Your task to perform on an android device: turn vacation reply on in the gmail app Image 0: 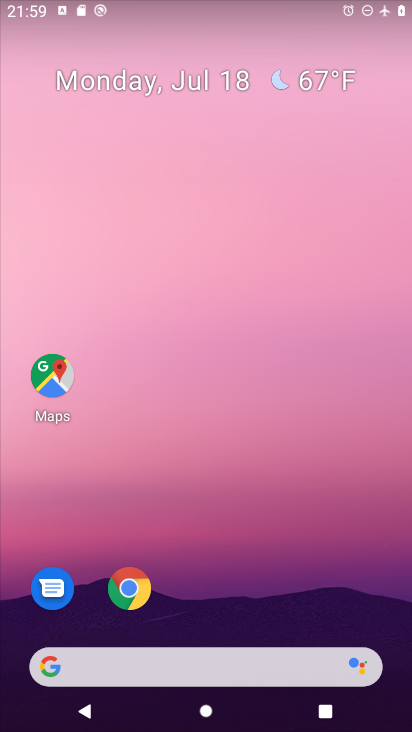
Step 0: drag from (364, 593) to (363, 192)
Your task to perform on an android device: turn vacation reply on in the gmail app Image 1: 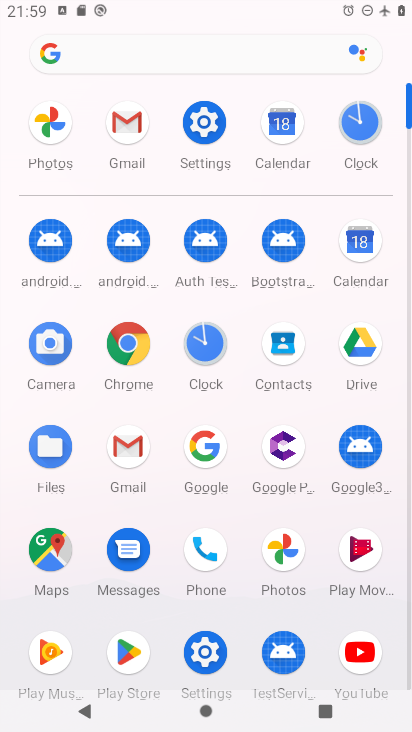
Step 1: click (124, 447)
Your task to perform on an android device: turn vacation reply on in the gmail app Image 2: 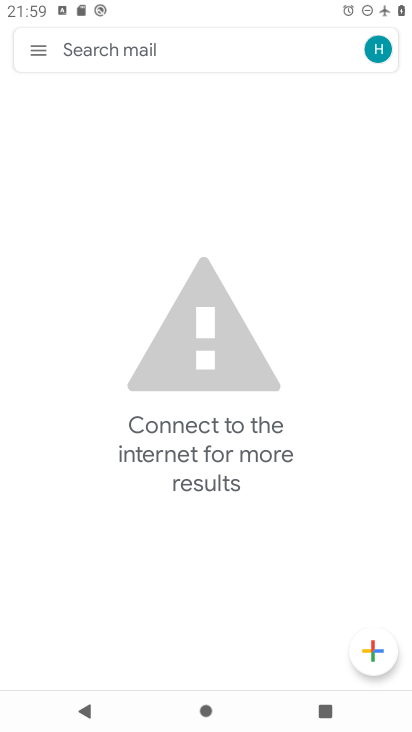
Step 2: click (37, 48)
Your task to perform on an android device: turn vacation reply on in the gmail app Image 3: 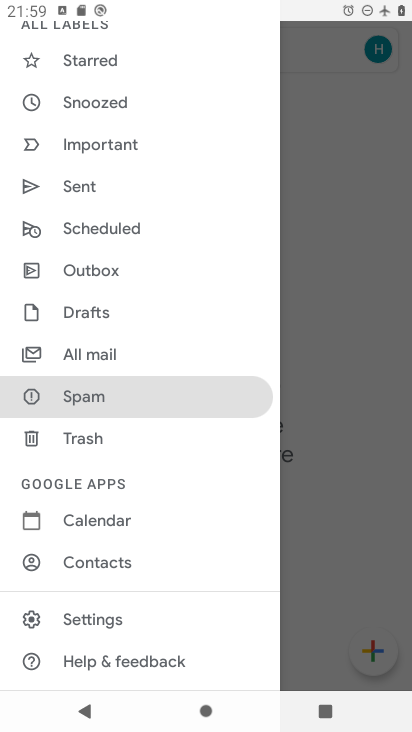
Step 3: click (90, 616)
Your task to perform on an android device: turn vacation reply on in the gmail app Image 4: 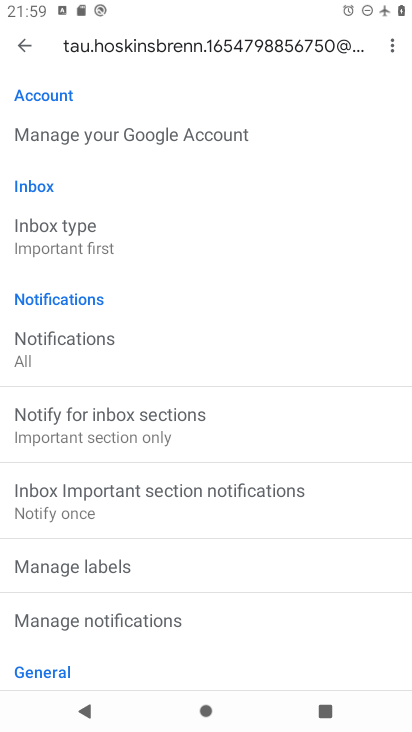
Step 4: drag from (211, 643) to (204, 284)
Your task to perform on an android device: turn vacation reply on in the gmail app Image 5: 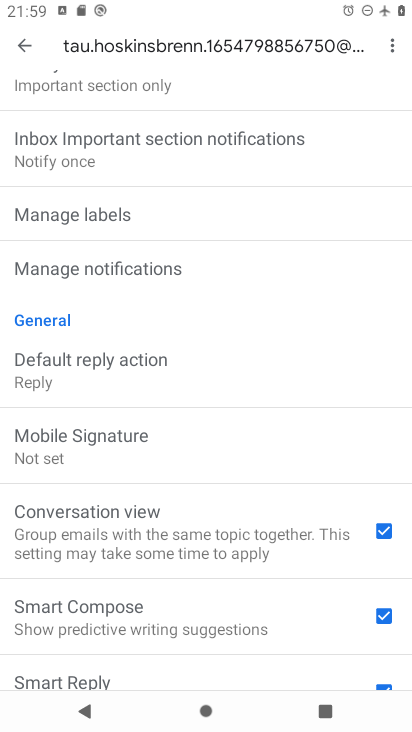
Step 5: drag from (213, 572) to (210, 240)
Your task to perform on an android device: turn vacation reply on in the gmail app Image 6: 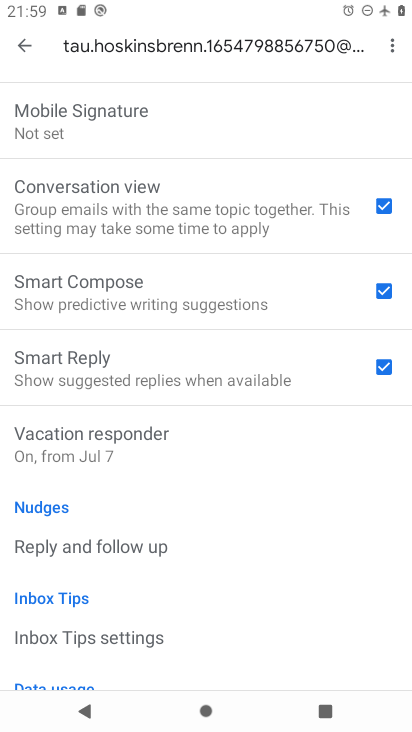
Step 6: click (96, 424)
Your task to perform on an android device: turn vacation reply on in the gmail app Image 7: 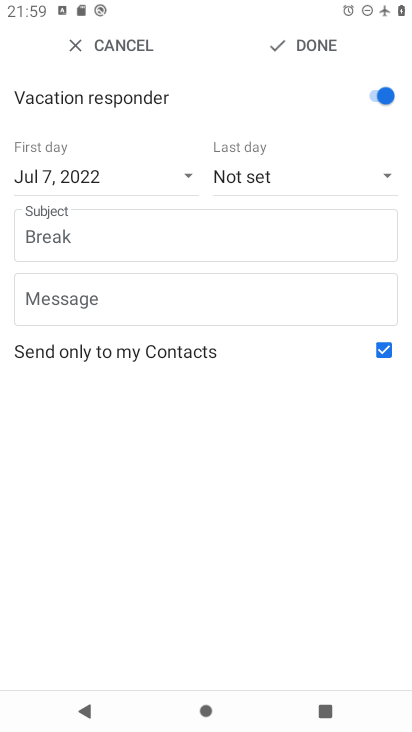
Step 7: click (320, 43)
Your task to perform on an android device: turn vacation reply on in the gmail app Image 8: 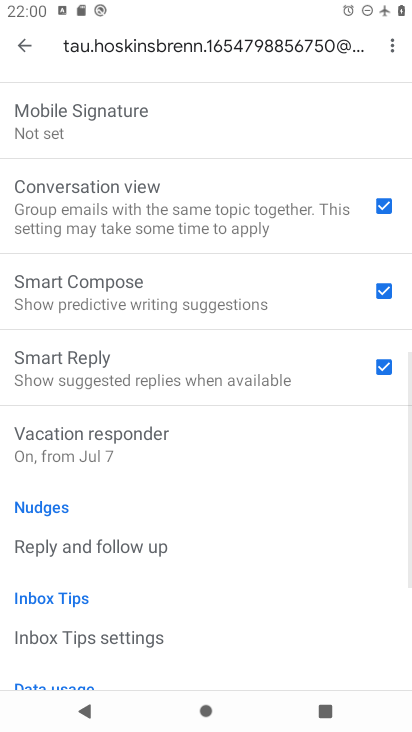
Step 8: task complete